Your task to perform on an android device: toggle pop-ups in chrome Image 0: 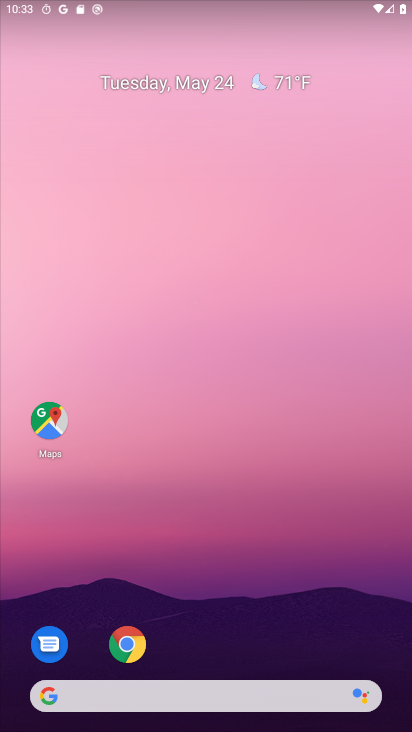
Step 0: click (125, 641)
Your task to perform on an android device: toggle pop-ups in chrome Image 1: 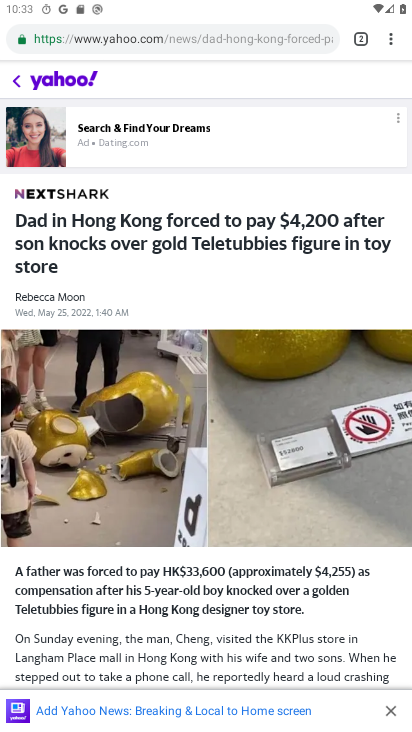
Step 1: click (396, 38)
Your task to perform on an android device: toggle pop-ups in chrome Image 2: 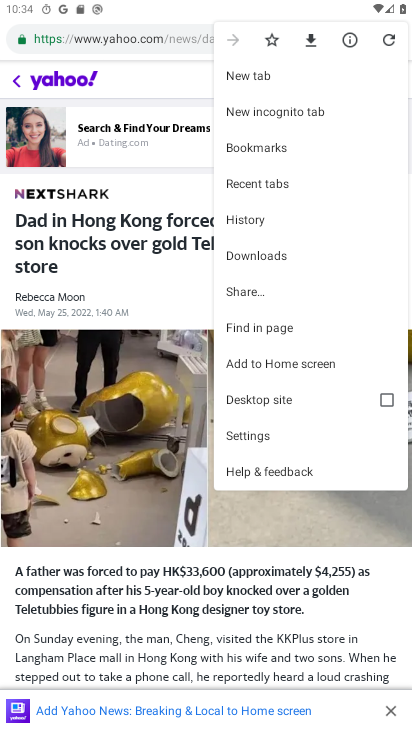
Step 2: click (266, 434)
Your task to perform on an android device: toggle pop-ups in chrome Image 3: 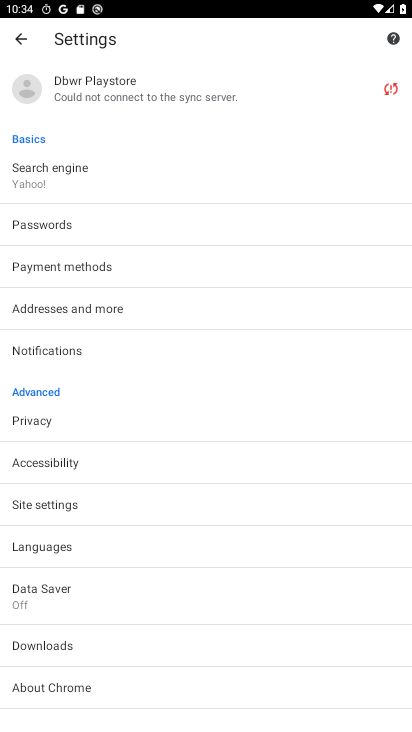
Step 3: click (78, 508)
Your task to perform on an android device: toggle pop-ups in chrome Image 4: 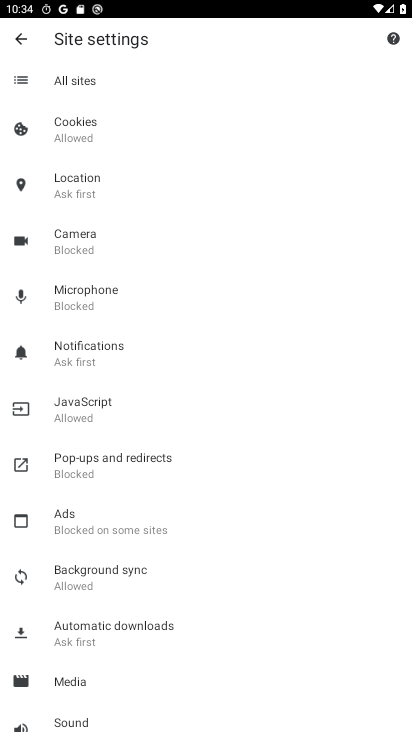
Step 4: click (110, 448)
Your task to perform on an android device: toggle pop-ups in chrome Image 5: 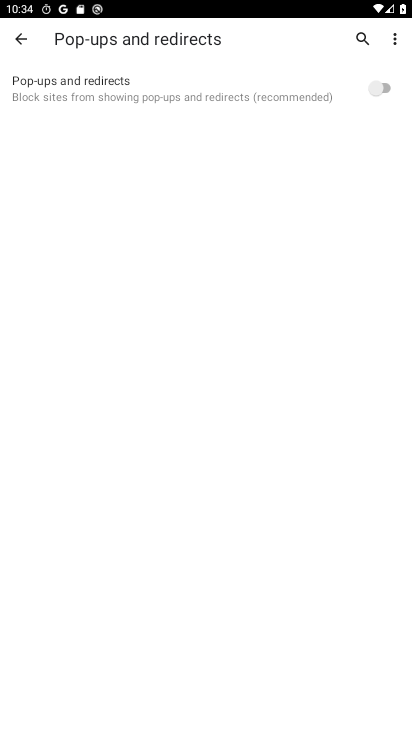
Step 5: click (379, 90)
Your task to perform on an android device: toggle pop-ups in chrome Image 6: 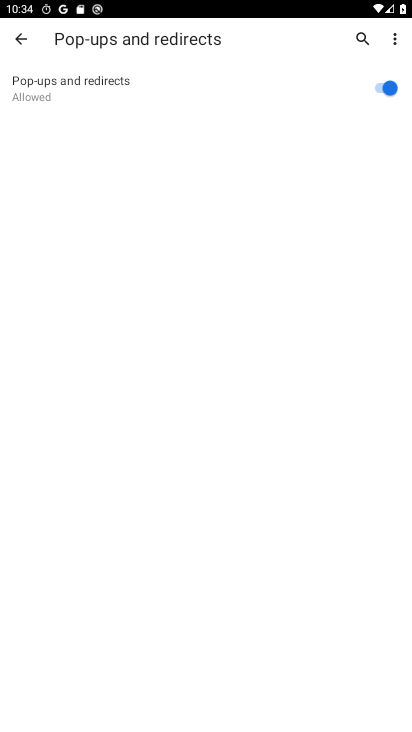
Step 6: task complete